Your task to perform on an android device: What is the recent news? Image 0: 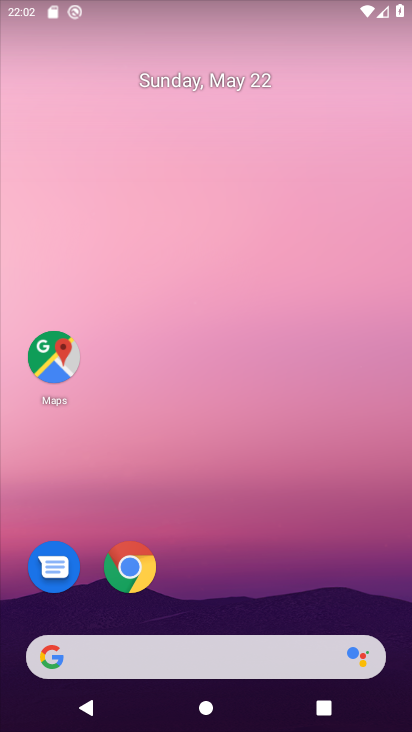
Step 0: drag from (11, 417) to (410, 440)
Your task to perform on an android device: What is the recent news? Image 1: 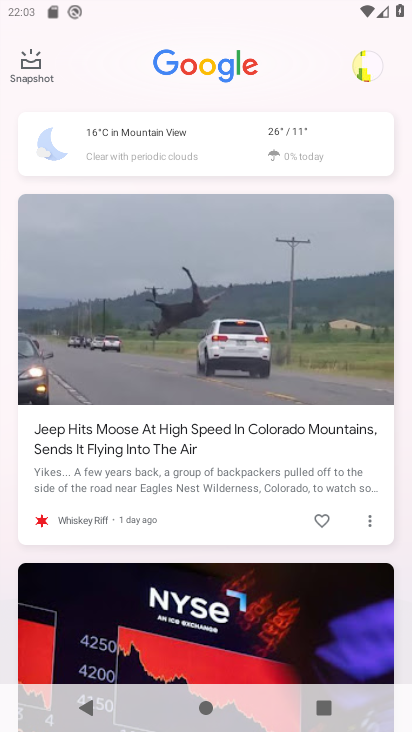
Step 1: task complete